Your task to perform on an android device: open chrome privacy settings Image 0: 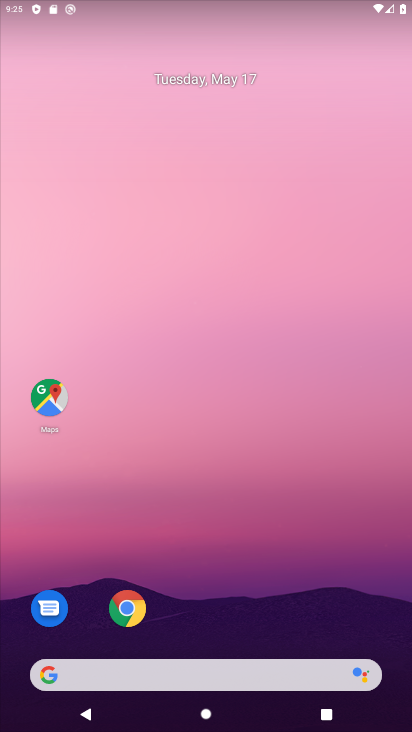
Step 0: drag from (270, 547) to (187, 14)
Your task to perform on an android device: open chrome privacy settings Image 1: 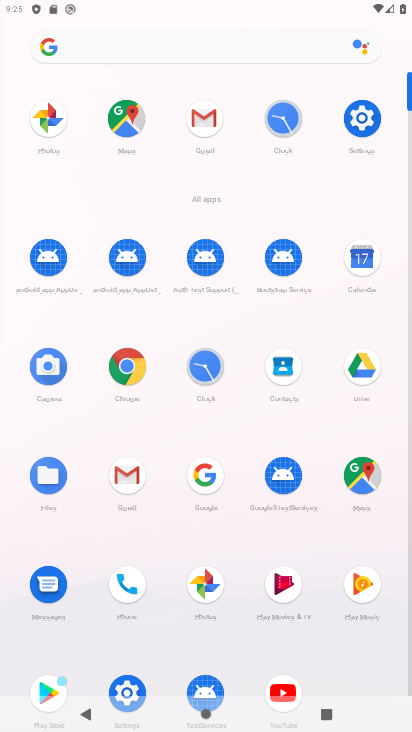
Step 1: click (360, 118)
Your task to perform on an android device: open chrome privacy settings Image 2: 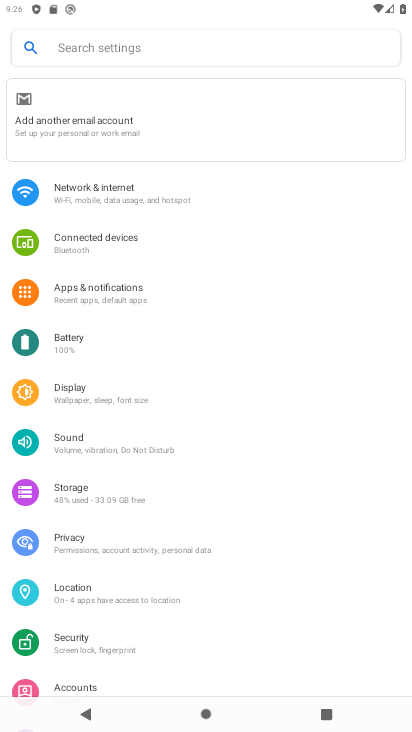
Step 2: click (69, 536)
Your task to perform on an android device: open chrome privacy settings Image 3: 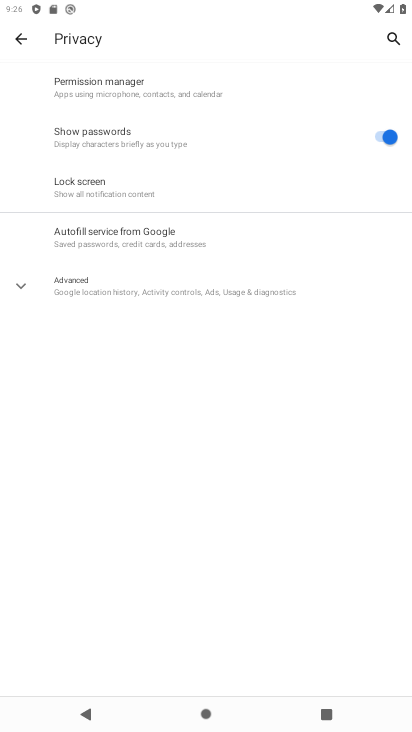
Step 3: task complete